Your task to perform on an android device: Open Android settings Image 0: 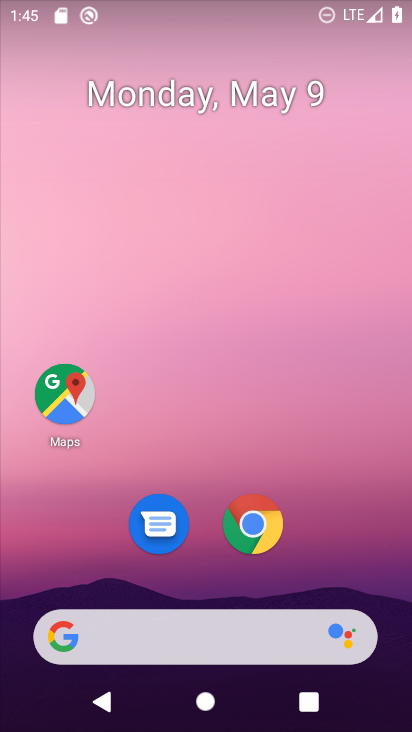
Step 0: drag from (55, 509) to (101, 40)
Your task to perform on an android device: Open Android settings Image 1: 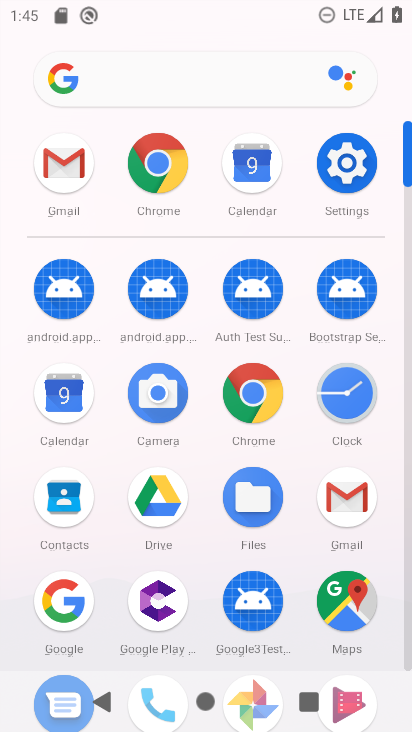
Step 1: click (342, 158)
Your task to perform on an android device: Open Android settings Image 2: 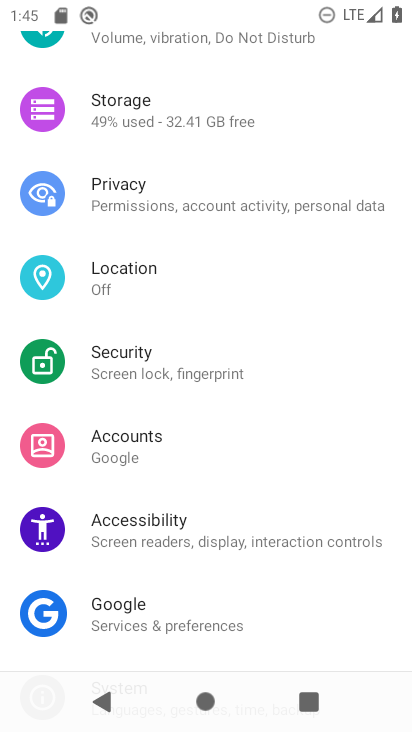
Step 2: drag from (288, 571) to (278, 50)
Your task to perform on an android device: Open Android settings Image 3: 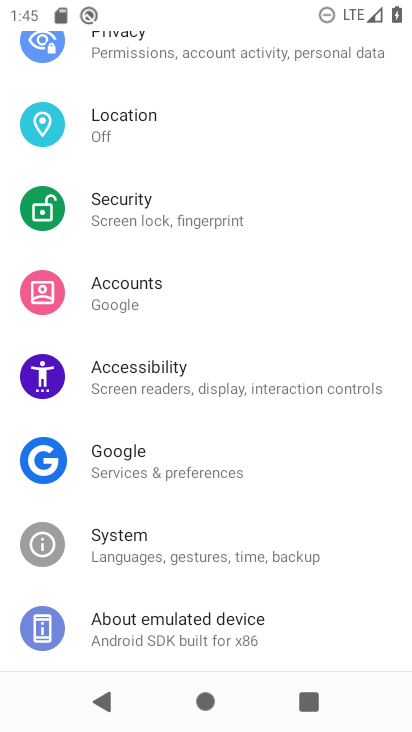
Step 3: click (226, 626)
Your task to perform on an android device: Open Android settings Image 4: 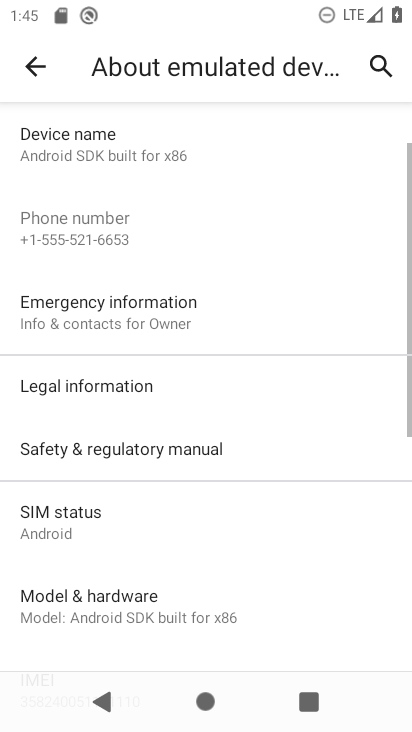
Step 4: task complete